Your task to perform on an android device: Find coffee shops on Maps Image 0: 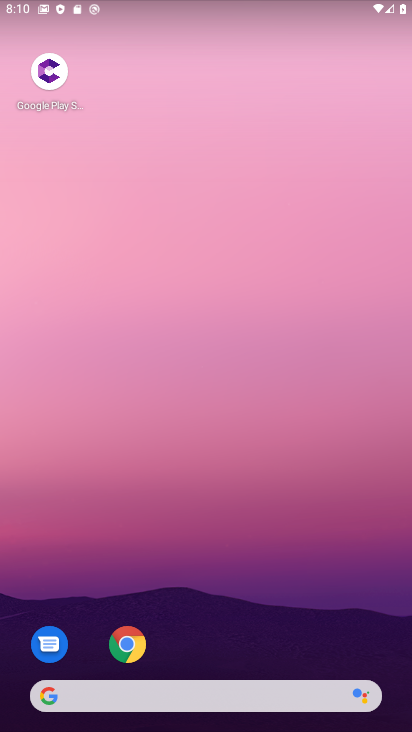
Step 0: drag from (231, 629) to (205, 231)
Your task to perform on an android device: Find coffee shops on Maps Image 1: 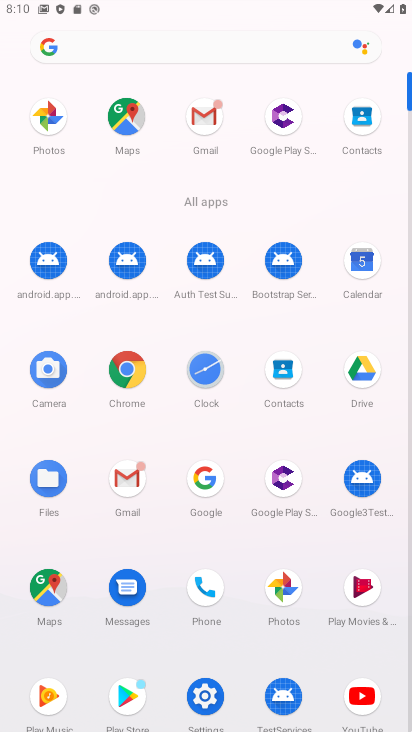
Step 1: click (54, 588)
Your task to perform on an android device: Find coffee shops on Maps Image 2: 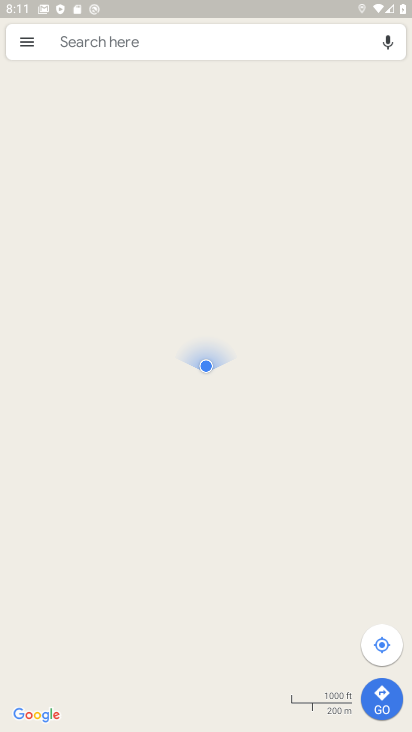
Step 2: click (140, 47)
Your task to perform on an android device: Find coffee shops on Maps Image 3: 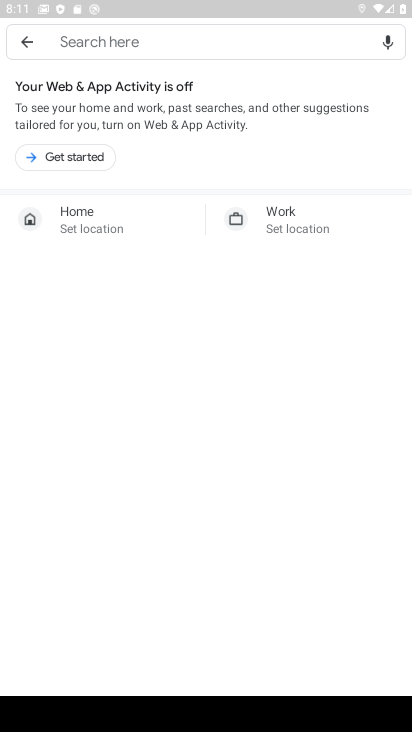
Step 3: click (140, 47)
Your task to perform on an android device: Find coffee shops on Maps Image 4: 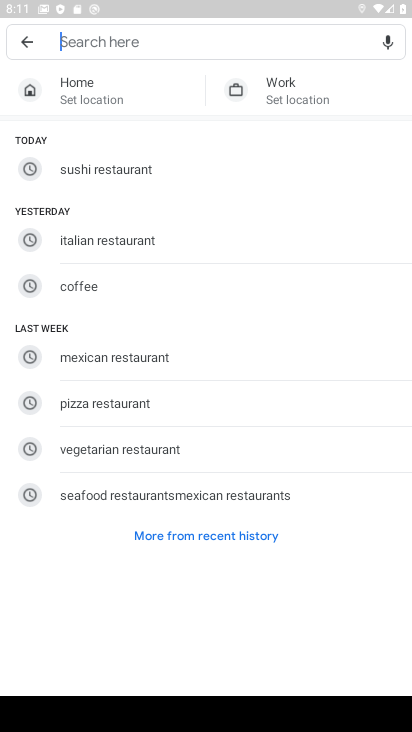
Step 4: type "coffee shops"
Your task to perform on an android device: Find coffee shops on Maps Image 5: 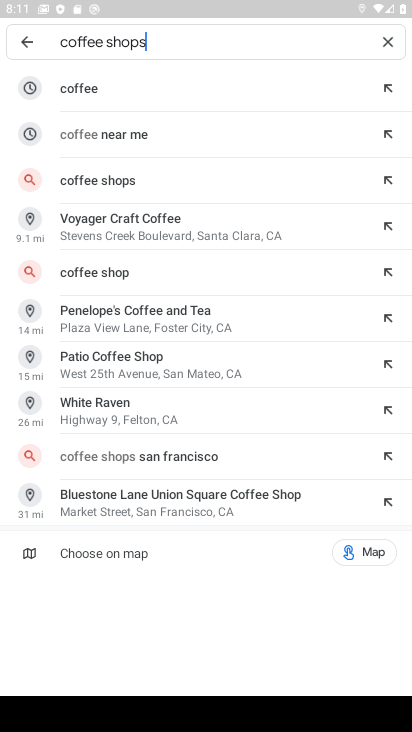
Step 5: click (124, 177)
Your task to perform on an android device: Find coffee shops on Maps Image 6: 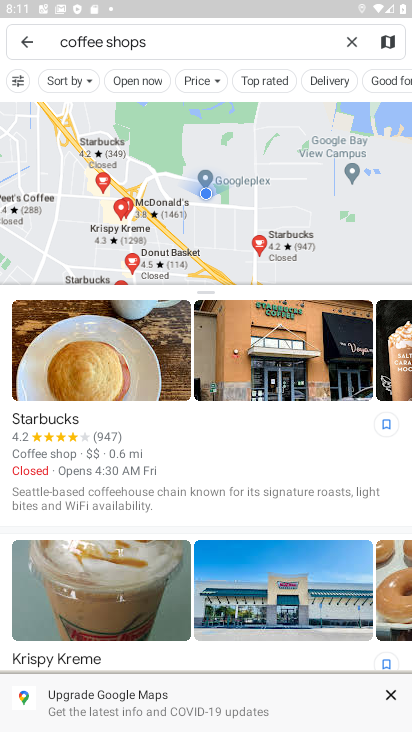
Step 6: task complete